Your task to perform on an android device: make emails show in primary in the gmail app Image 0: 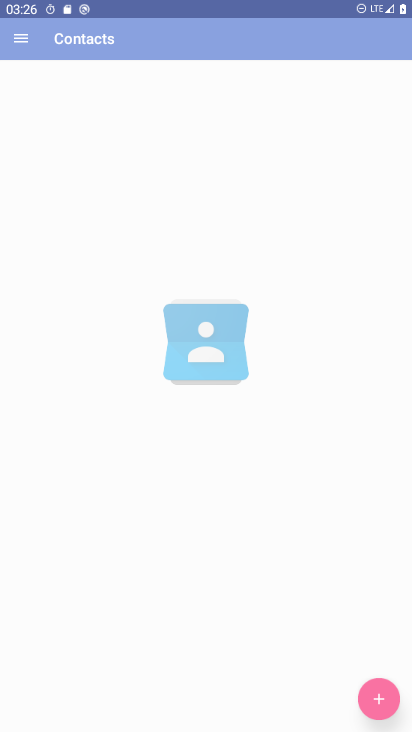
Step 0: drag from (322, 587) to (312, 37)
Your task to perform on an android device: make emails show in primary in the gmail app Image 1: 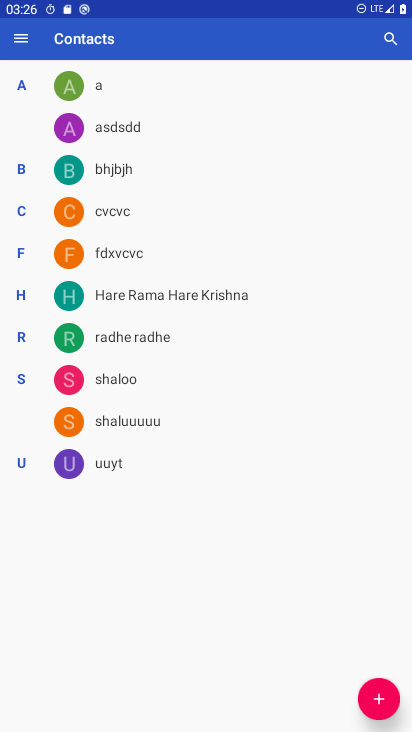
Step 1: press home button
Your task to perform on an android device: make emails show in primary in the gmail app Image 2: 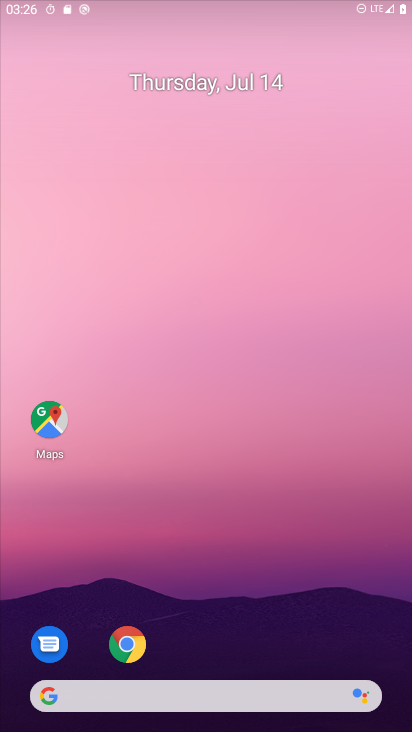
Step 2: drag from (266, 616) to (201, 31)
Your task to perform on an android device: make emails show in primary in the gmail app Image 3: 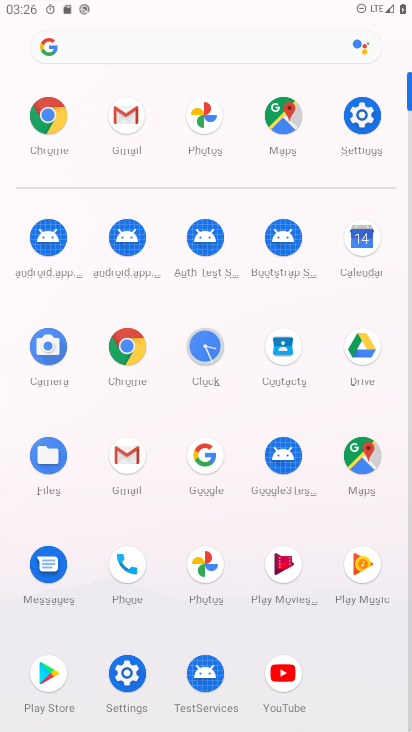
Step 3: click (126, 114)
Your task to perform on an android device: make emails show in primary in the gmail app Image 4: 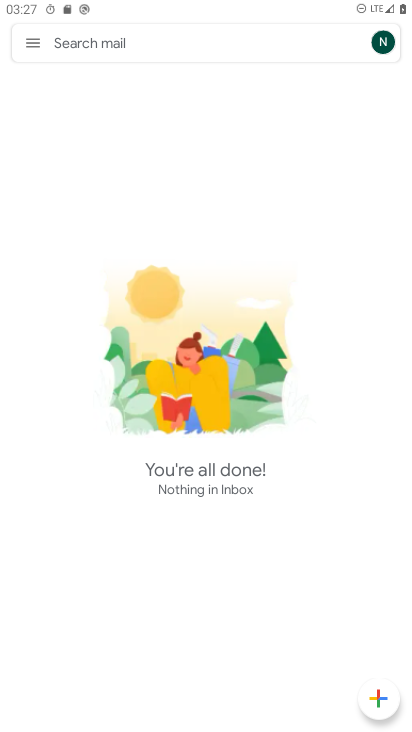
Step 4: click (24, 40)
Your task to perform on an android device: make emails show in primary in the gmail app Image 5: 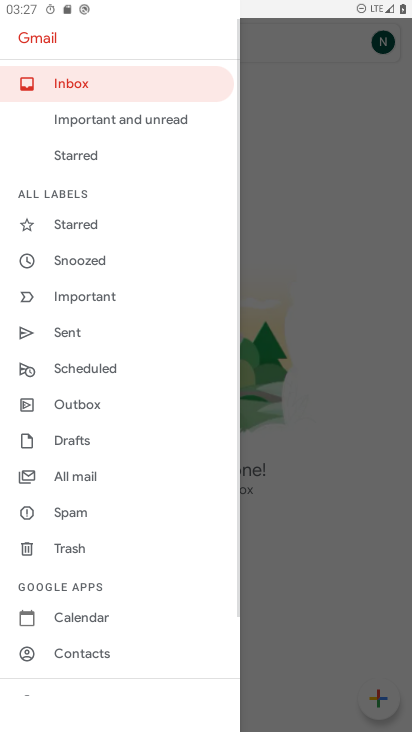
Step 5: drag from (74, 645) to (130, 159)
Your task to perform on an android device: make emails show in primary in the gmail app Image 6: 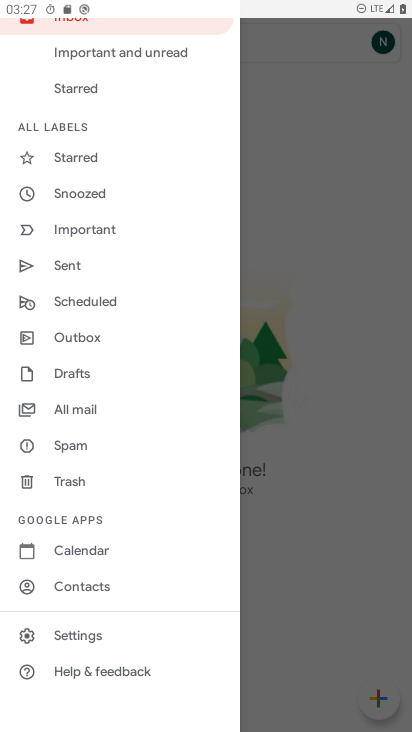
Step 6: click (80, 639)
Your task to perform on an android device: make emails show in primary in the gmail app Image 7: 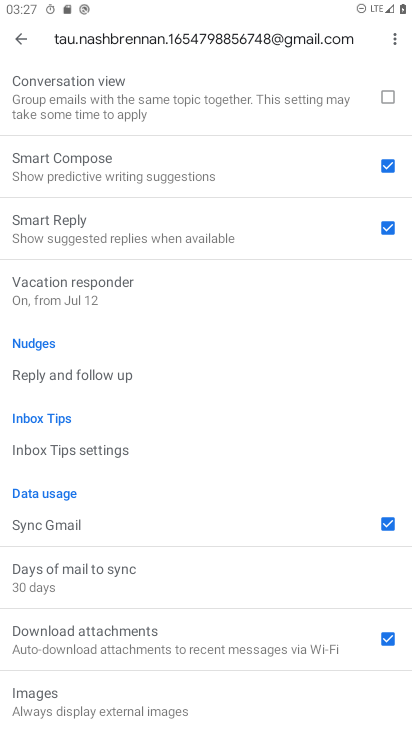
Step 7: drag from (201, 126) to (230, 602)
Your task to perform on an android device: make emails show in primary in the gmail app Image 8: 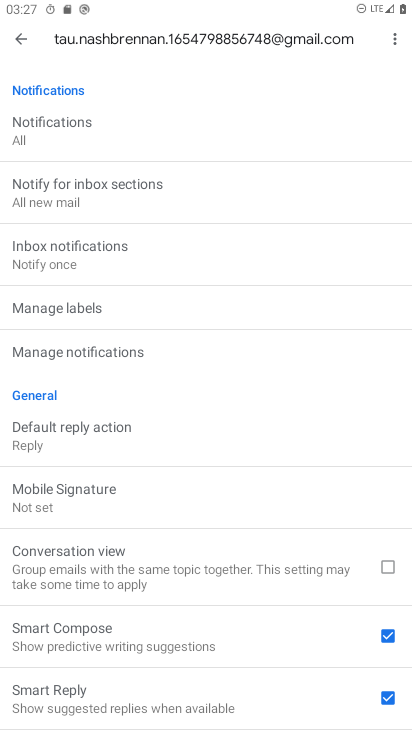
Step 8: drag from (85, 184) to (112, 581)
Your task to perform on an android device: make emails show in primary in the gmail app Image 9: 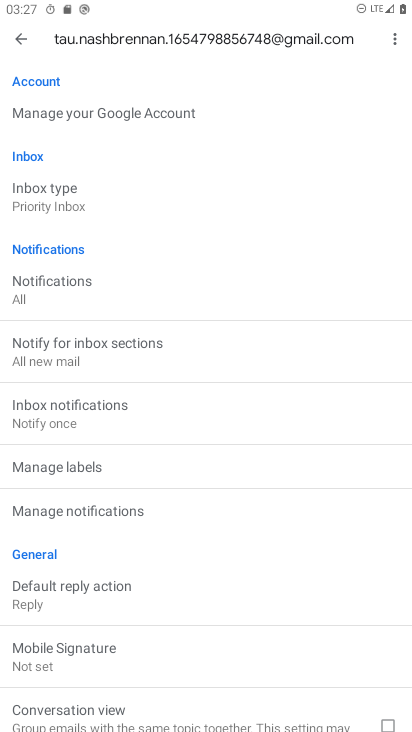
Step 9: click (61, 201)
Your task to perform on an android device: make emails show in primary in the gmail app Image 10: 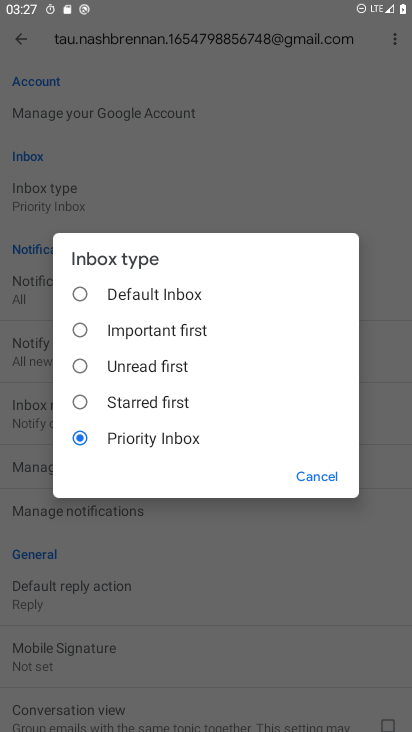
Step 10: click (126, 293)
Your task to perform on an android device: make emails show in primary in the gmail app Image 11: 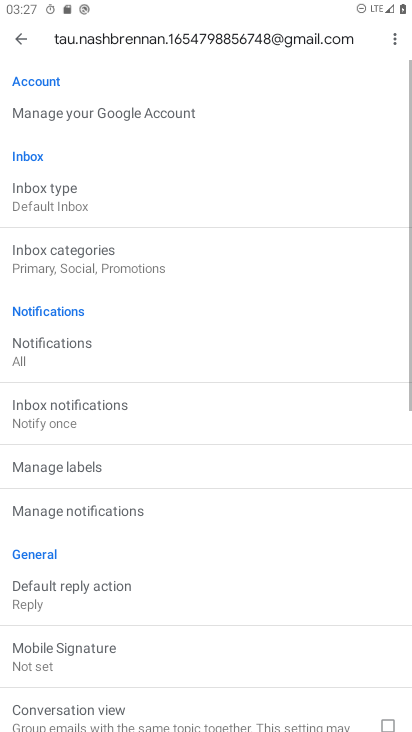
Step 11: click (91, 273)
Your task to perform on an android device: make emails show in primary in the gmail app Image 12: 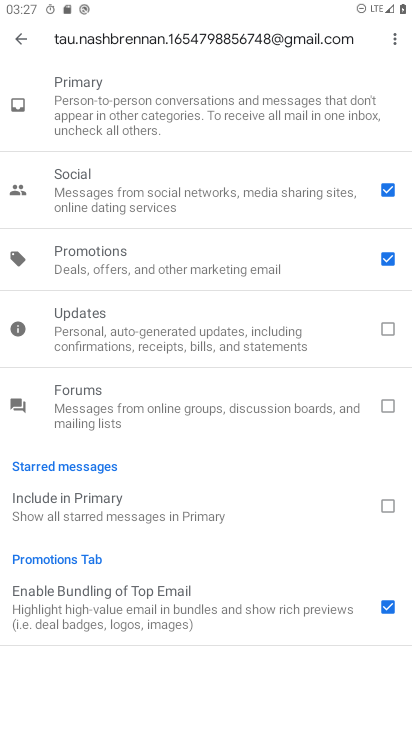
Step 12: task complete